Your task to perform on an android device: toggle data saver in the chrome app Image 0: 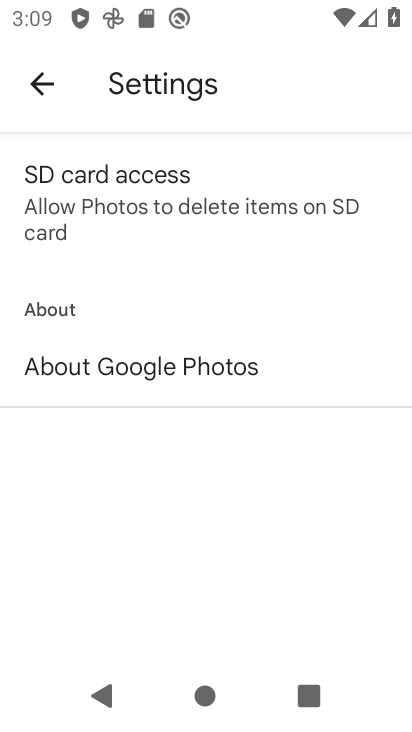
Step 0: press home button
Your task to perform on an android device: toggle data saver in the chrome app Image 1: 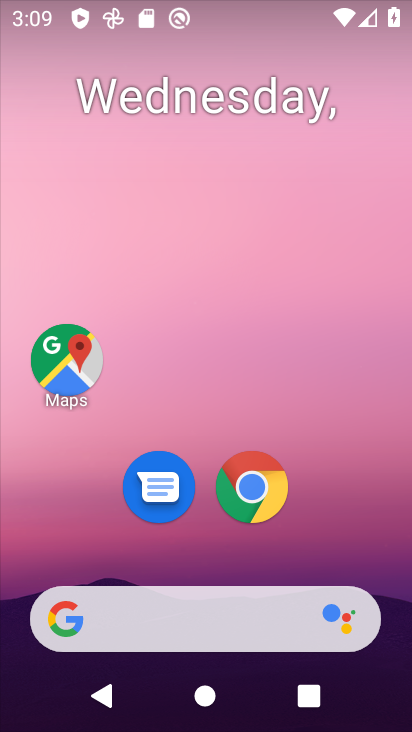
Step 1: drag from (372, 542) to (375, 150)
Your task to perform on an android device: toggle data saver in the chrome app Image 2: 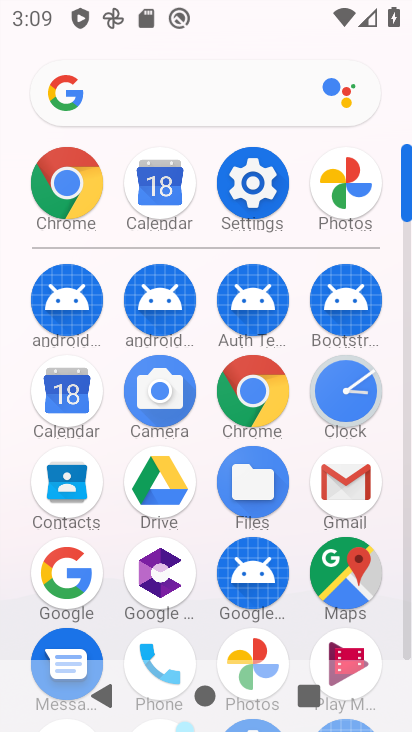
Step 2: click (286, 402)
Your task to perform on an android device: toggle data saver in the chrome app Image 3: 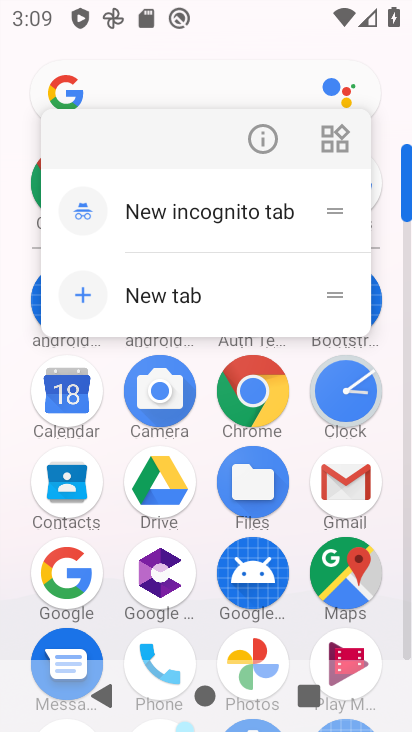
Step 3: click (245, 399)
Your task to perform on an android device: toggle data saver in the chrome app Image 4: 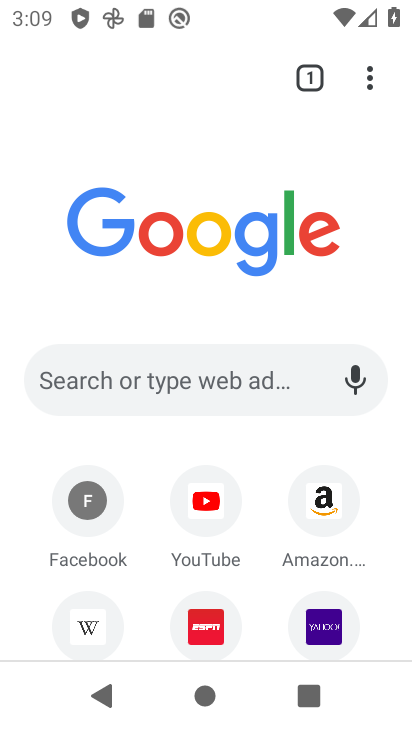
Step 4: click (370, 82)
Your task to perform on an android device: toggle data saver in the chrome app Image 5: 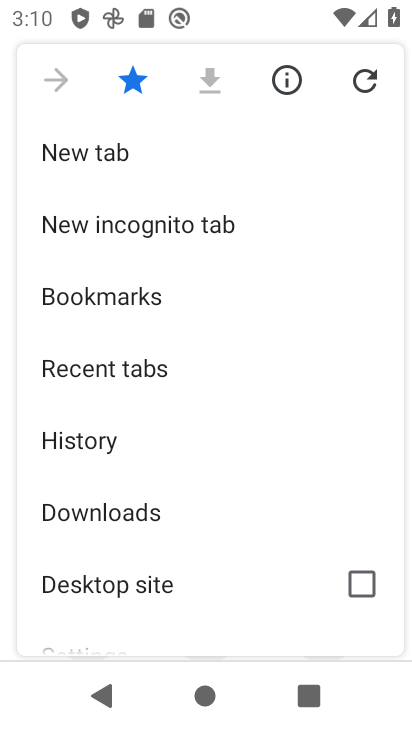
Step 5: drag from (252, 538) to (259, 282)
Your task to perform on an android device: toggle data saver in the chrome app Image 6: 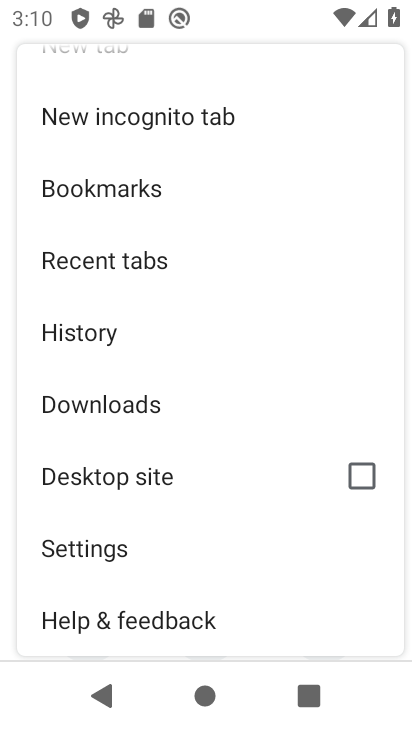
Step 6: click (79, 554)
Your task to perform on an android device: toggle data saver in the chrome app Image 7: 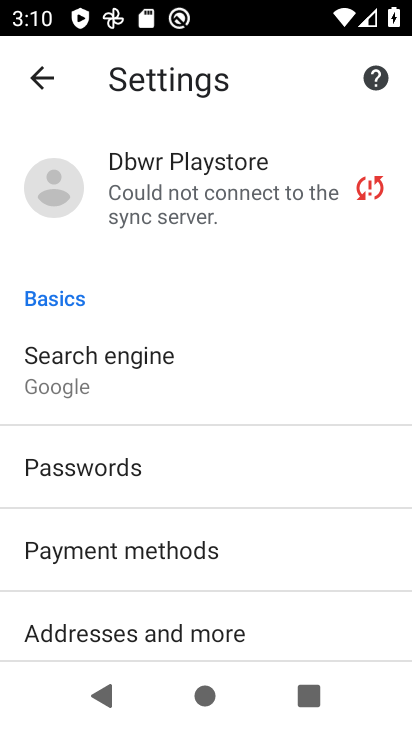
Step 7: drag from (283, 613) to (303, 447)
Your task to perform on an android device: toggle data saver in the chrome app Image 8: 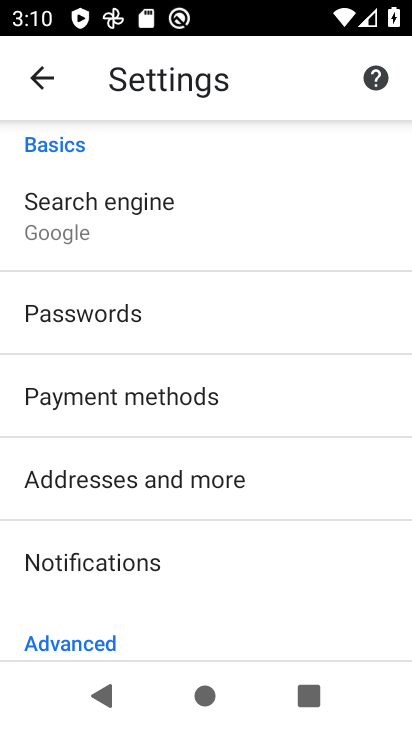
Step 8: drag from (312, 570) to (307, 420)
Your task to perform on an android device: toggle data saver in the chrome app Image 9: 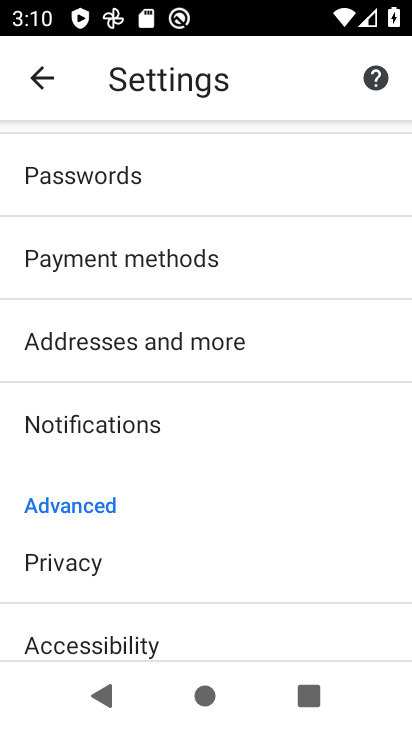
Step 9: drag from (304, 563) to (298, 415)
Your task to perform on an android device: toggle data saver in the chrome app Image 10: 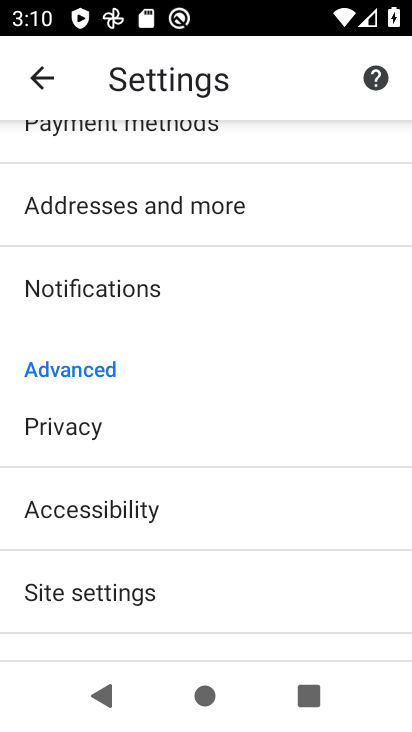
Step 10: drag from (266, 588) to (263, 432)
Your task to perform on an android device: toggle data saver in the chrome app Image 11: 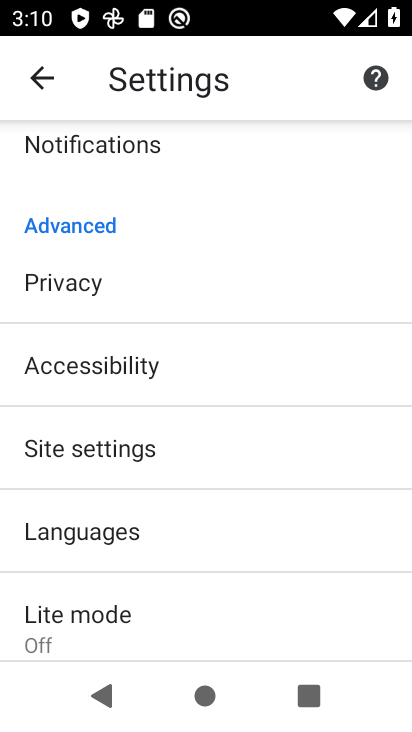
Step 11: drag from (252, 598) to (253, 483)
Your task to perform on an android device: toggle data saver in the chrome app Image 12: 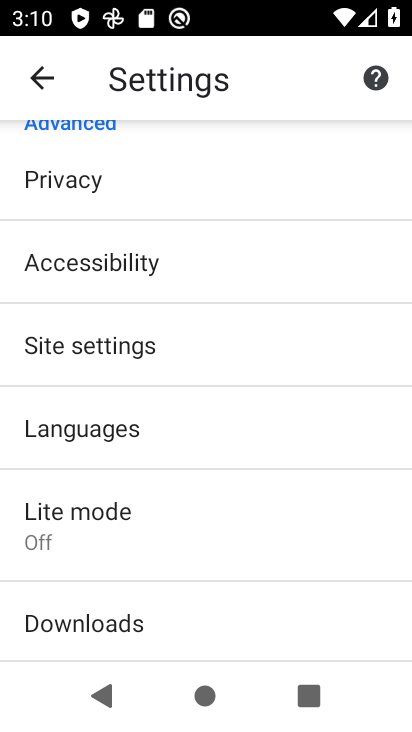
Step 12: click (217, 539)
Your task to perform on an android device: toggle data saver in the chrome app Image 13: 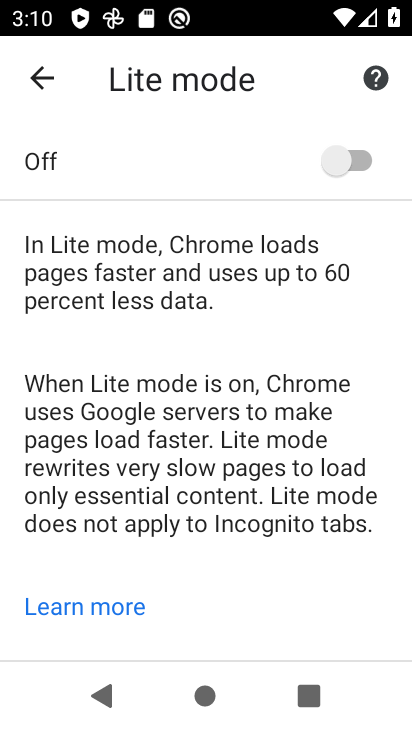
Step 13: click (345, 181)
Your task to perform on an android device: toggle data saver in the chrome app Image 14: 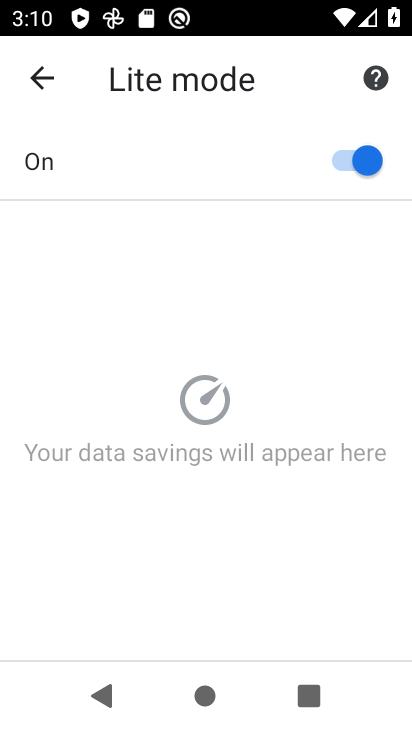
Step 14: task complete